Your task to perform on an android device: toggle airplane mode Image 0: 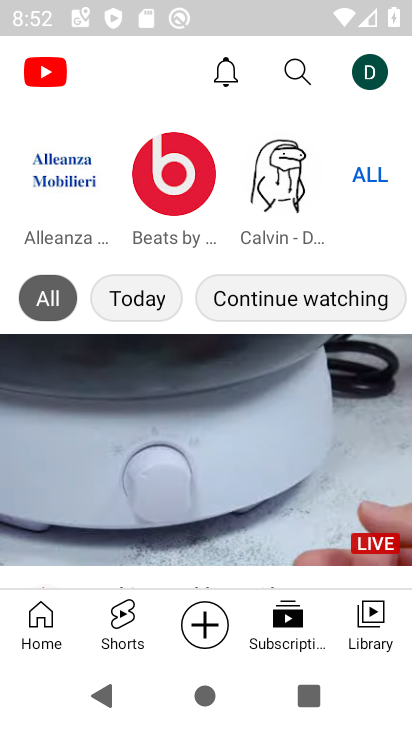
Step 0: press home button
Your task to perform on an android device: toggle airplane mode Image 1: 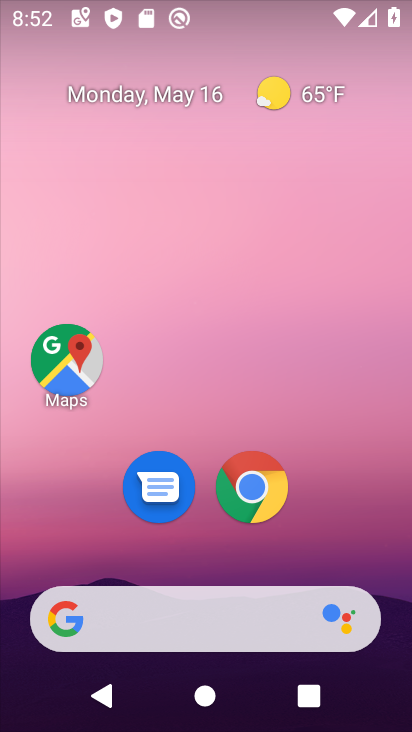
Step 1: drag from (371, 547) to (354, 110)
Your task to perform on an android device: toggle airplane mode Image 2: 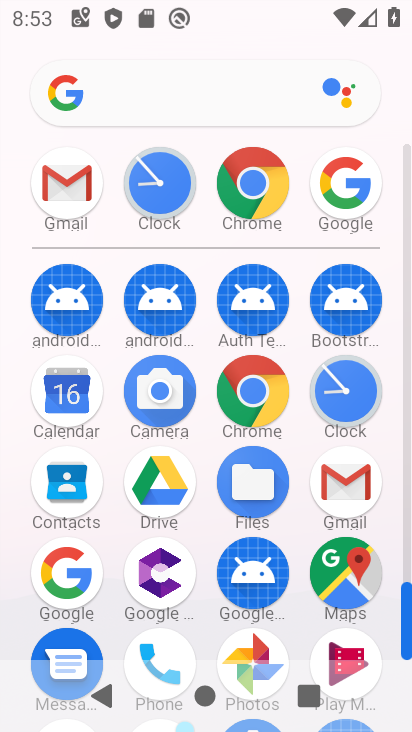
Step 2: drag from (203, 548) to (205, 284)
Your task to perform on an android device: toggle airplane mode Image 3: 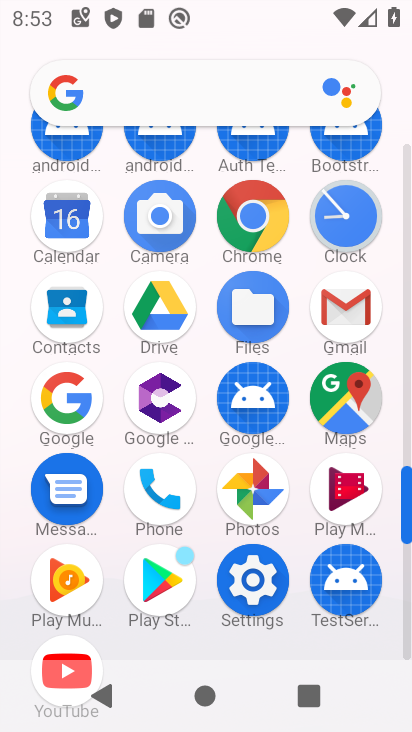
Step 3: click (252, 587)
Your task to perform on an android device: toggle airplane mode Image 4: 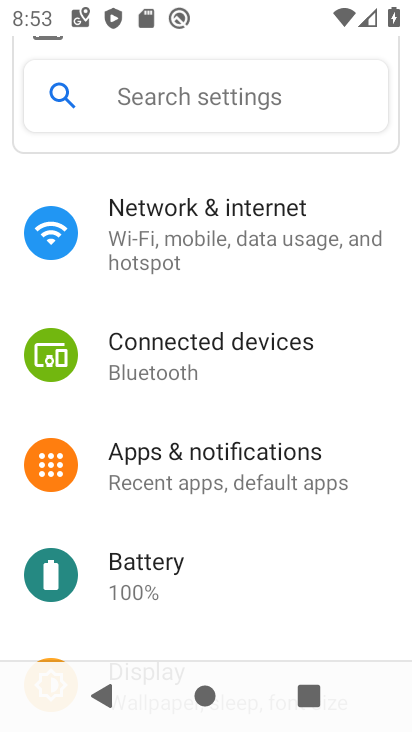
Step 4: drag from (353, 611) to (349, 449)
Your task to perform on an android device: toggle airplane mode Image 5: 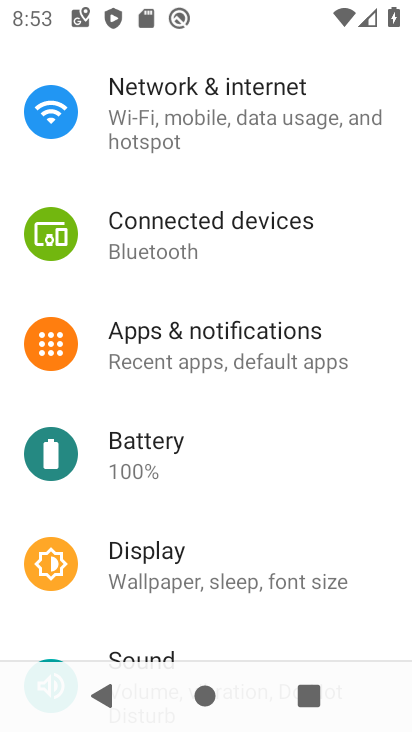
Step 5: drag from (344, 627) to (352, 456)
Your task to perform on an android device: toggle airplane mode Image 6: 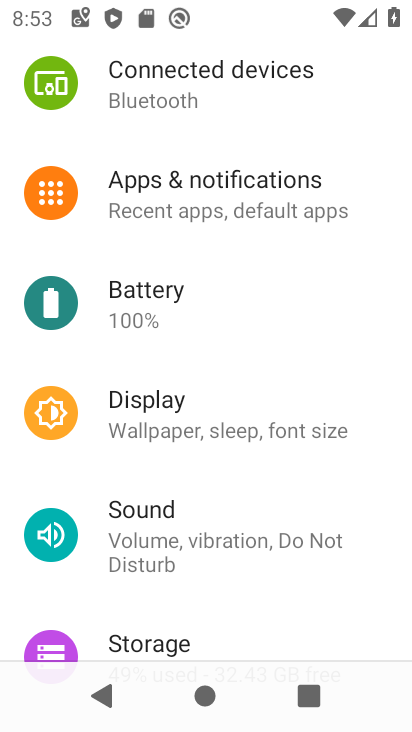
Step 6: drag from (351, 629) to (341, 497)
Your task to perform on an android device: toggle airplane mode Image 7: 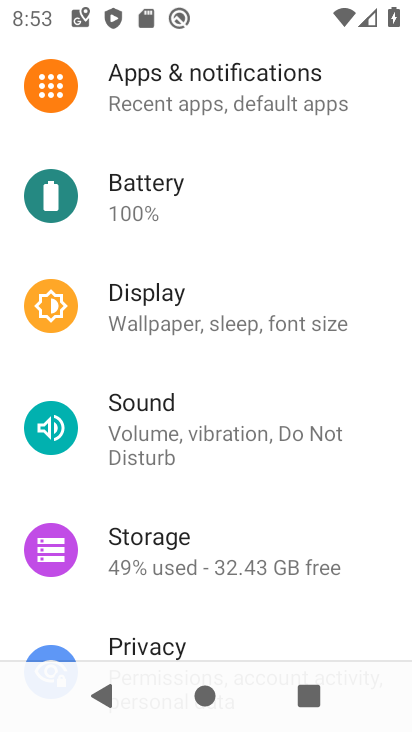
Step 7: drag from (360, 235) to (339, 461)
Your task to perform on an android device: toggle airplane mode Image 8: 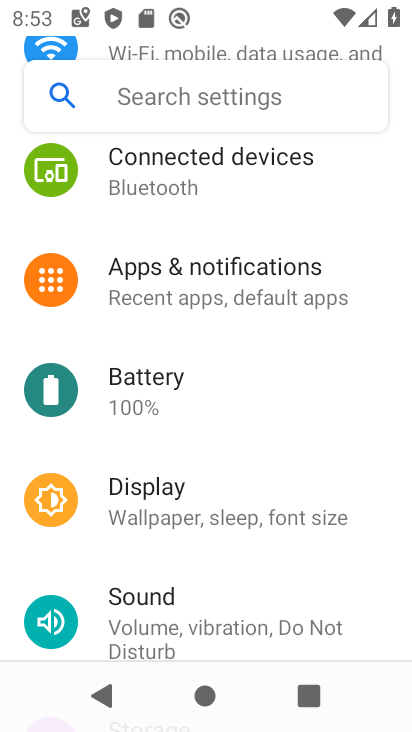
Step 8: drag from (361, 249) to (338, 416)
Your task to perform on an android device: toggle airplane mode Image 9: 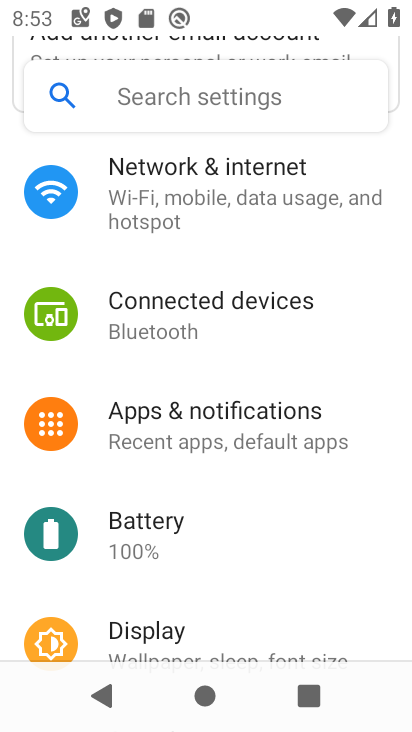
Step 9: drag from (343, 305) to (333, 459)
Your task to perform on an android device: toggle airplane mode Image 10: 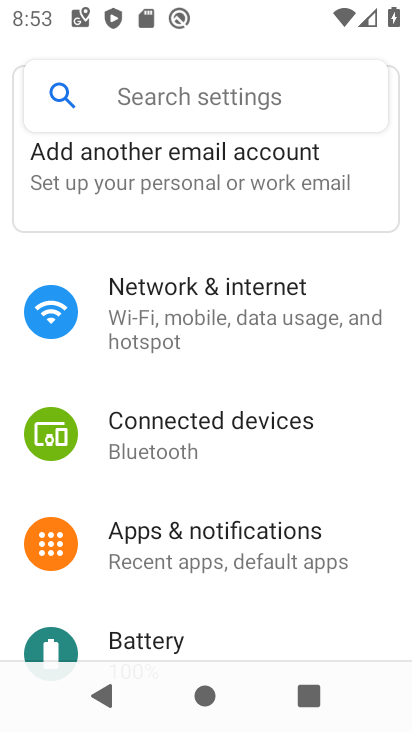
Step 10: click (272, 318)
Your task to perform on an android device: toggle airplane mode Image 11: 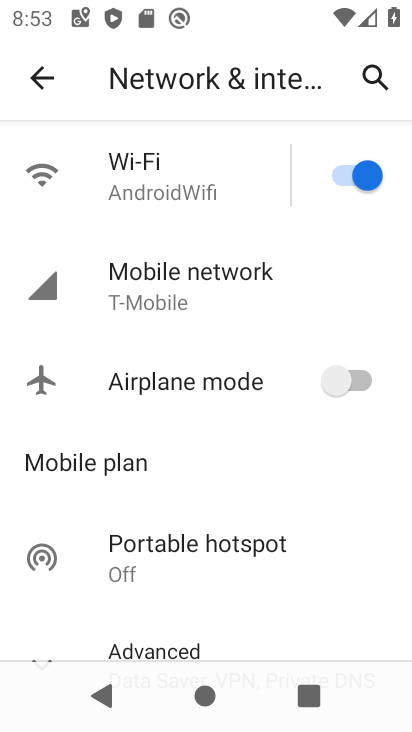
Step 11: click (338, 387)
Your task to perform on an android device: toggle airplane mode Image 12: 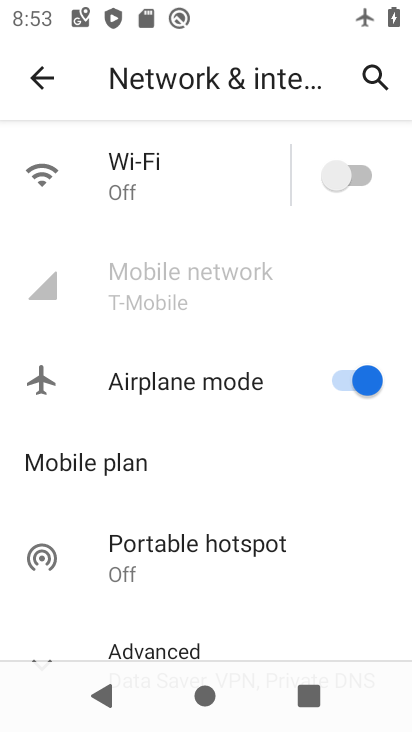
Step 12: task complete